Your task to perform on an android device: turn off improve location accuracy Image 0: 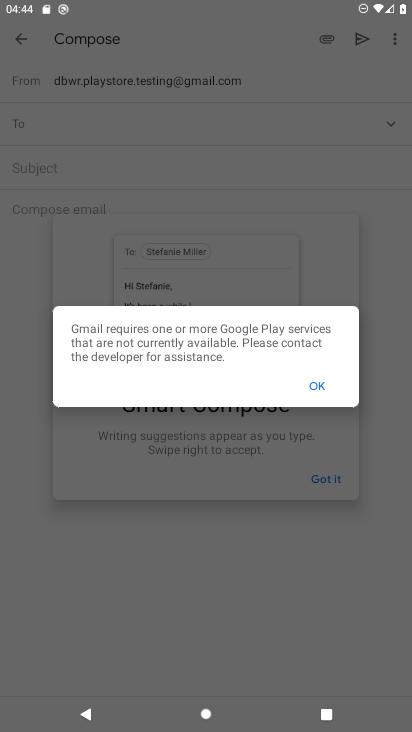
Step 0: press home button
Your task to perform on an android device: turn off improve location accuracy Image 1: 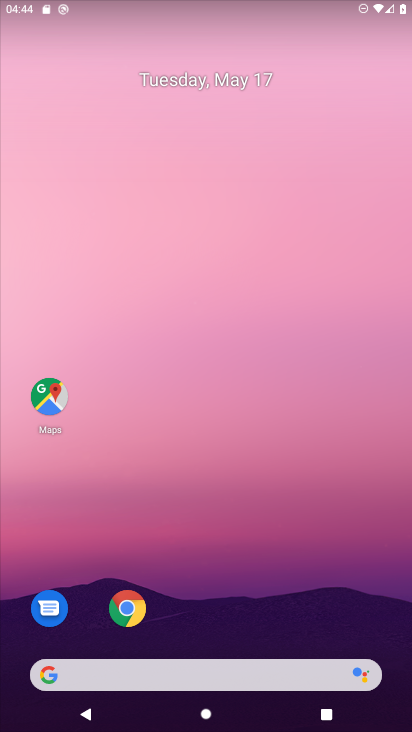
Step 1: drag from (172, 650) to (209, 341)
Your task to perform on an android device: turn off improve location accuracy Image 2: 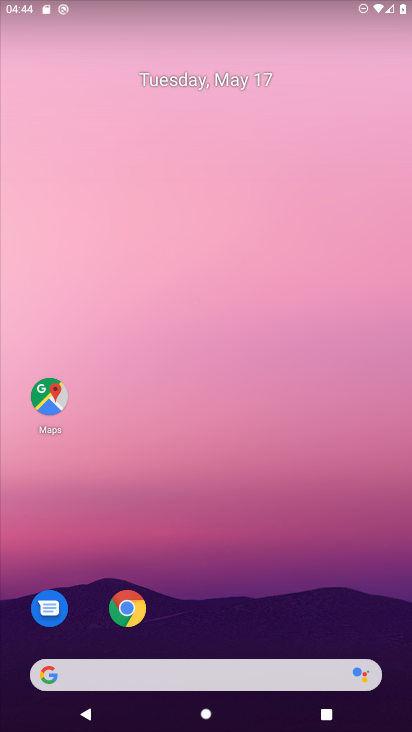
Step 2: drag from (274, 571) to (274, 218)
Your task to perform on an android device: turn off improve location accuracy Image 3: 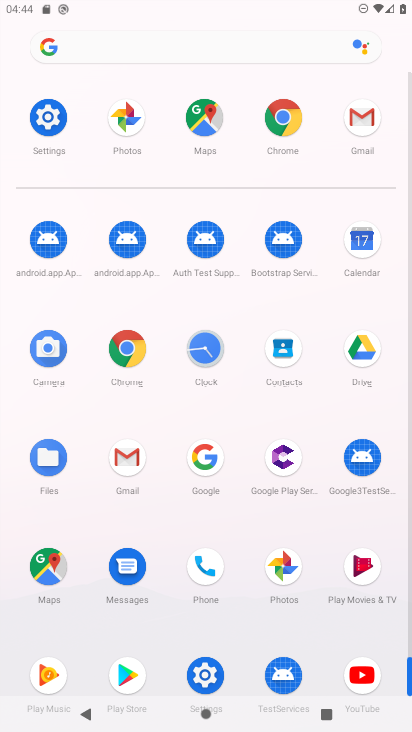
Step 3: click (54, 122)
Your task to perform on an android device: turn off improve location accuracy Image 4: 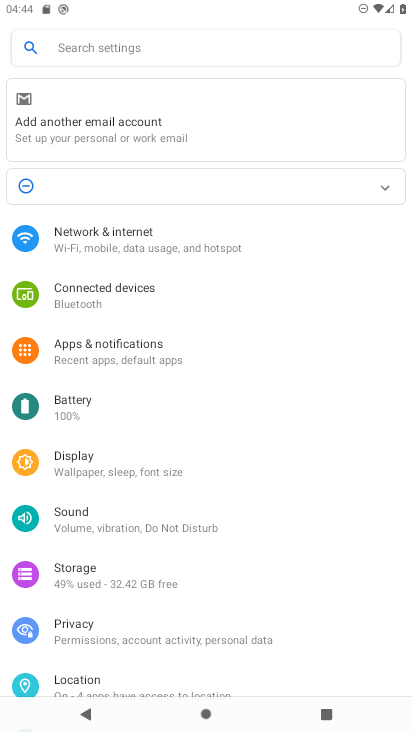
Step 4: click (84, 679)
Your task to perform on an android device: turn off improve location accuracy Image 5: 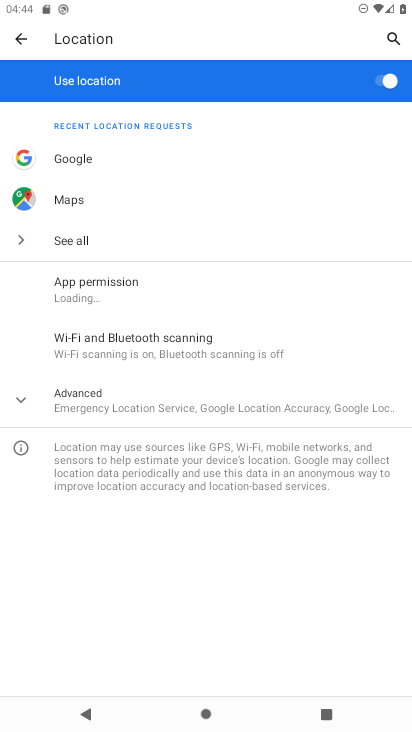
Step 5: click (113, 403)
Your task to perform on an android device: turn off improve location accuracy Image 6: 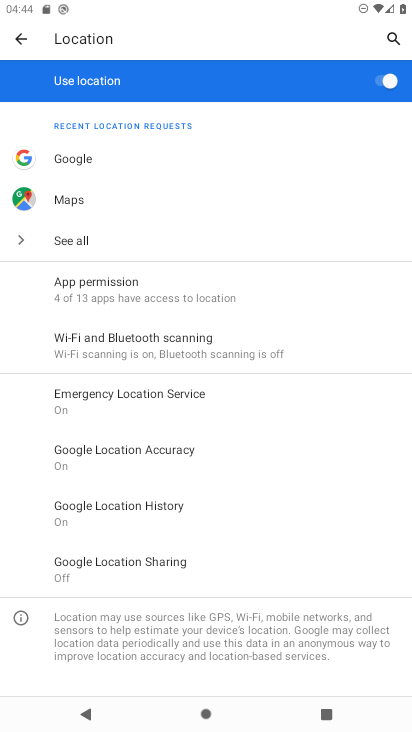
Step 6: click (162, 449)
Your task to perform on an android device: turn off improve location accuracy Image 7: 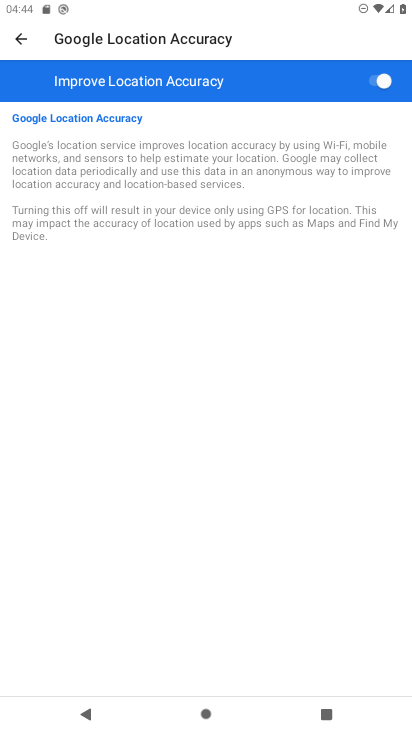
Step 7: click (376, 84)
Your task to perform on an android device: turn off improve location accuracy Image 8: 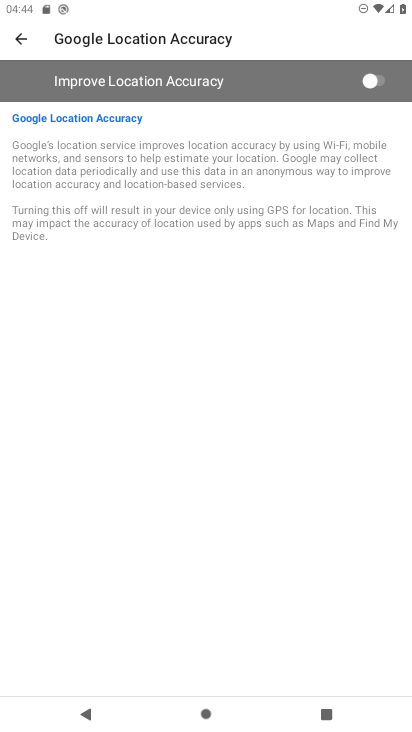
Step 8: task complete